Your task to perform on an android device: turn pop-ups off in chrome Image 0: 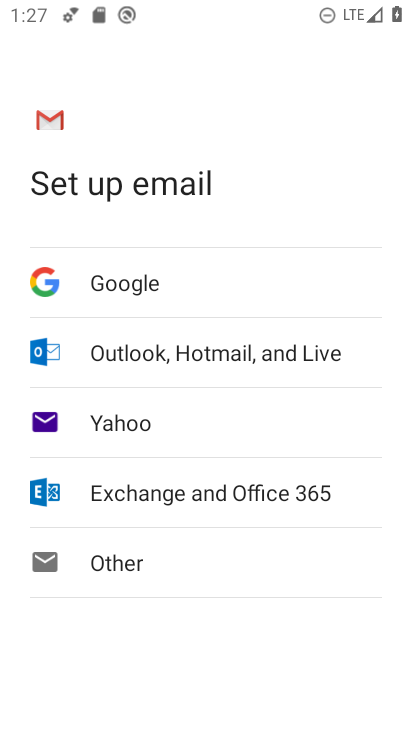
Step 0: press home button
Your task to perform on an android device: turn pop-ups off in chrome Image 1: 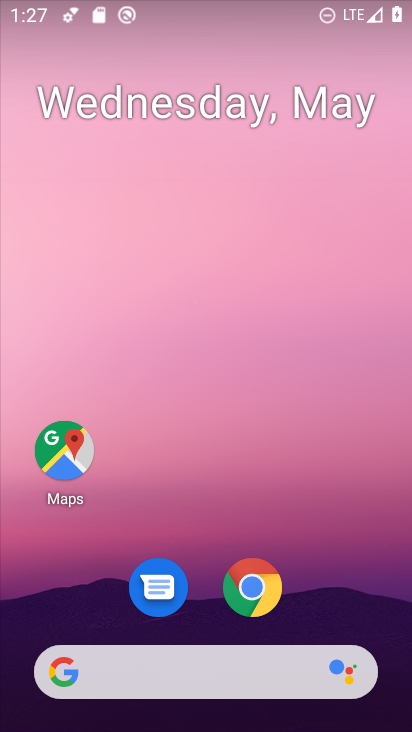
Step 1: drag from (349, 590) to (243, 122)
Your task to perform on an android device: turn pop-ups off in chrome Image 2: 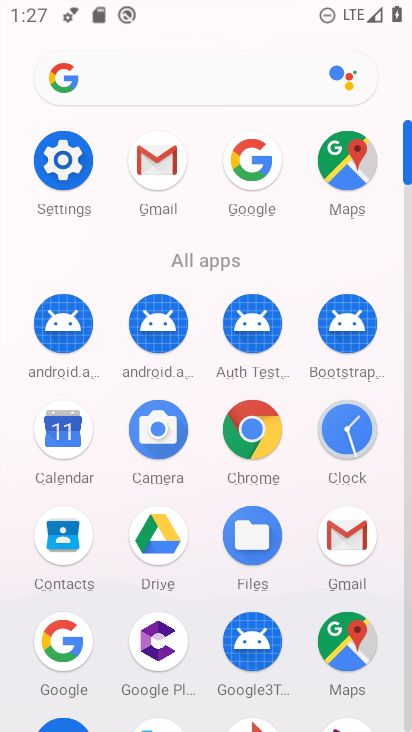
Step 2: click (253, 444)
Your task to perform on an android device: turn pop-ups off in chrome Image 3: 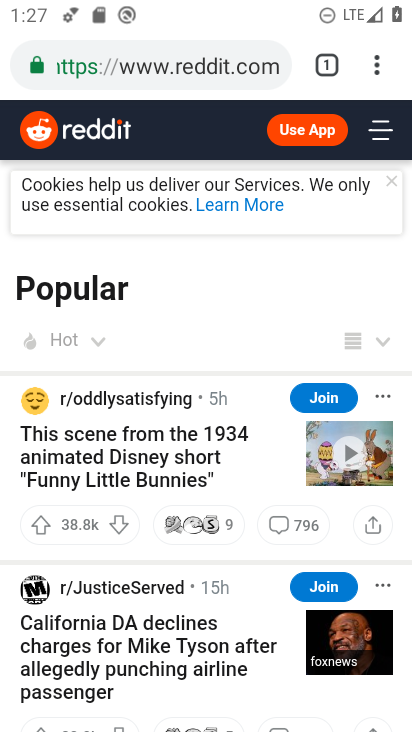
Step 3: click (379, 72)
Your task to perform on an android device: turn pop-ups off in chrome Image 4: 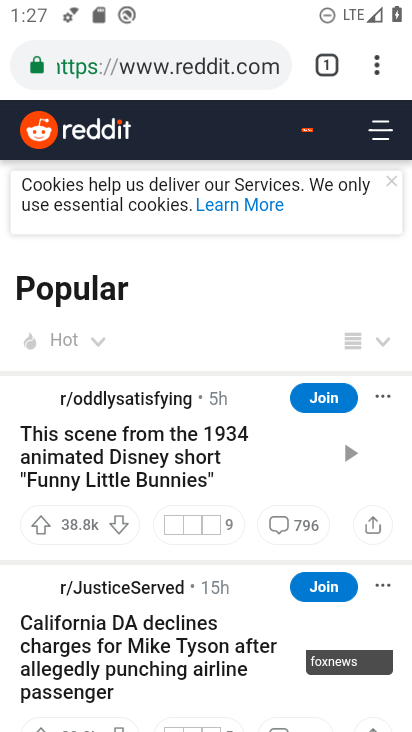
Step 4: click (370, 75)
Your task to perform on an android device: turn pop-ups off in chrome Image 5: 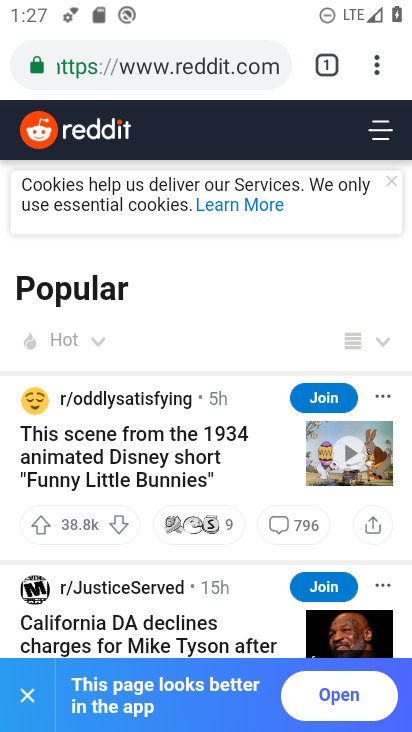
Step 5: click (378, 73)
Your task to perform on an android device: turn pop-ups off in chrome Image 6: 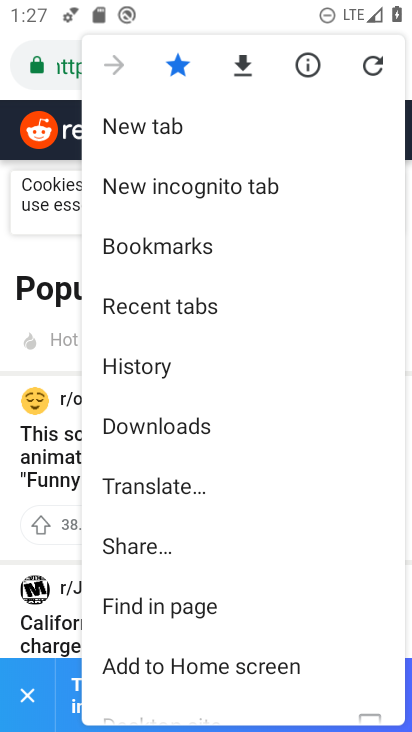
Step 6: drag from (187, 632) to (256, 355)
Your task to perform on an android device: turn pop-ups off in chrome Image 7: 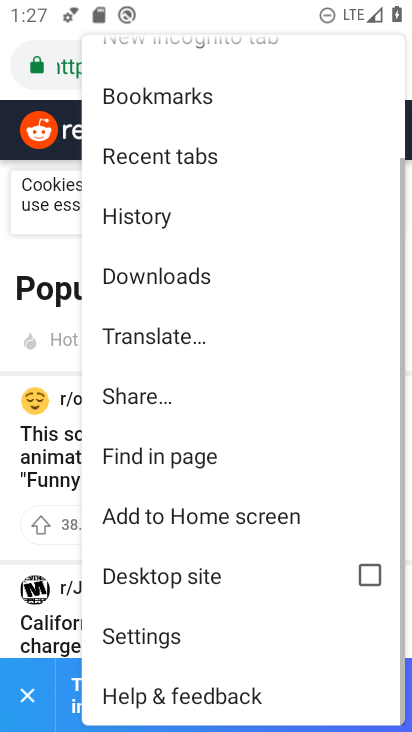
Step 7: click (208, 637)
Your task to perform on an android device: turn pop-ups off in chrome Image 8: 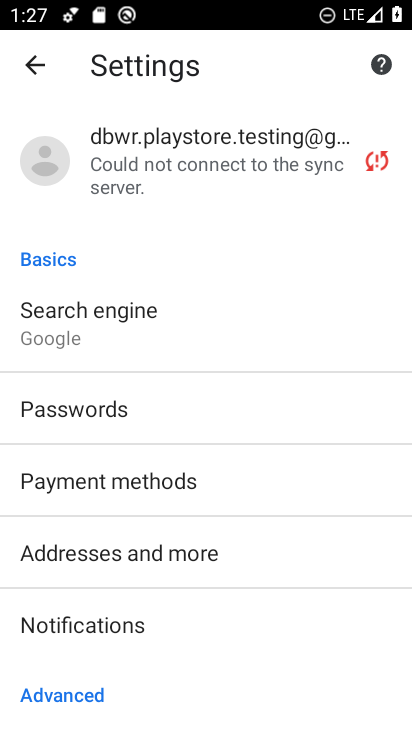
Step 8: drag from (269, 421) to (254, 357)
Your task to perform on an android device: turn pop-ups off in chrome Image 9: 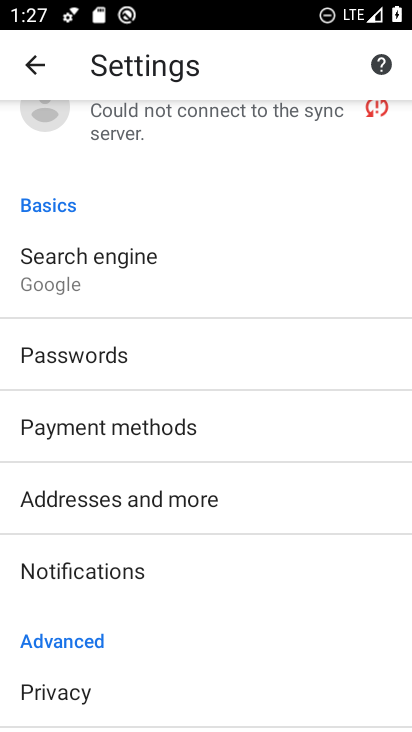
Step 9: drag from (223, 683) to (193, 380)
Your task to perform on an android device: turn pop-ups off in chrome Image 10: 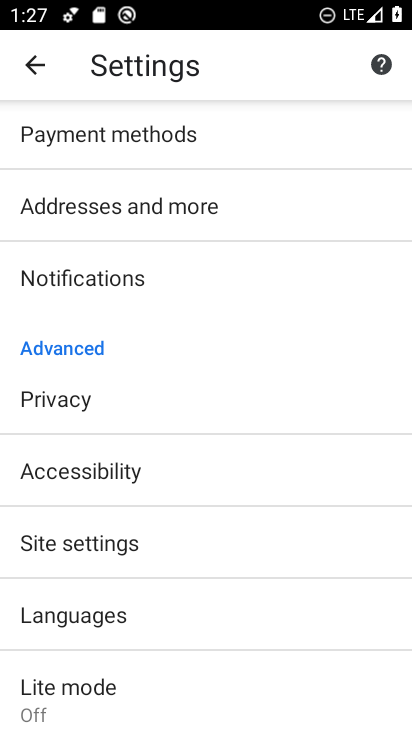
Step 10: click (117, 560)
Your task to perform on an android device: turn pop-ups off in chrome Image 11: 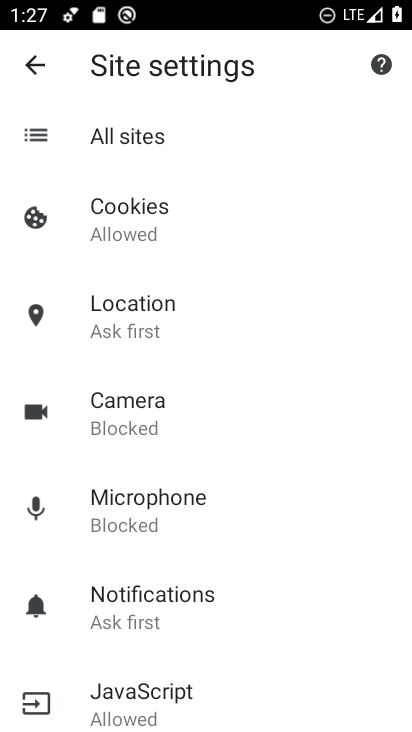
Step 11: drag from (286, 637) to (277, 335)
Your task to perform on an android device: turn pop-ups off in chrome Image 12: 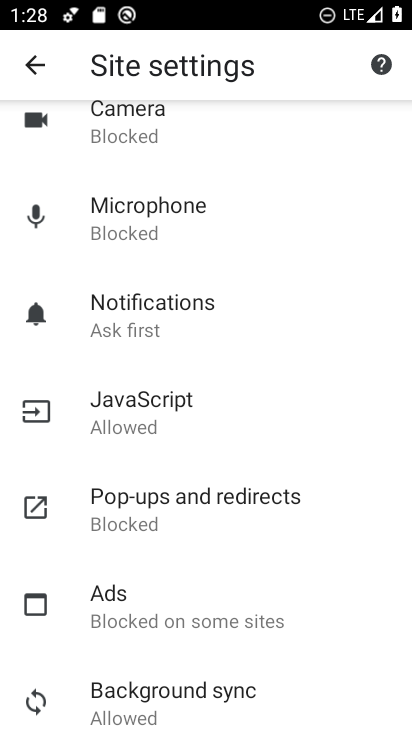
Step 12: click (193, 530)
Your task to perform on an android device: turn pop-ups off in chrome Image 13: 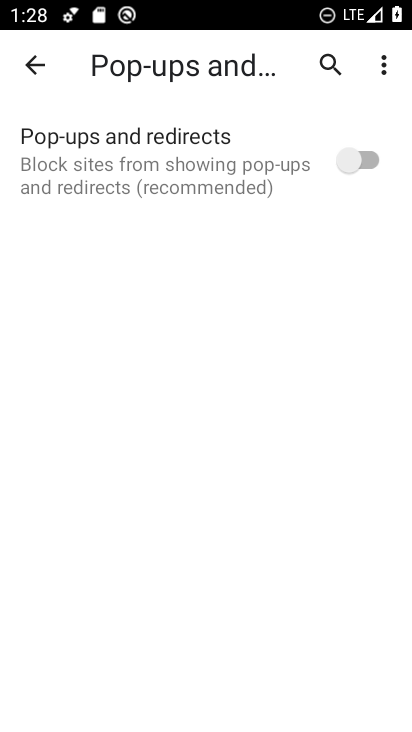
Step 13: task complete